Your task to perform on an android device: Search for a 100 ft extension cord Image 0: 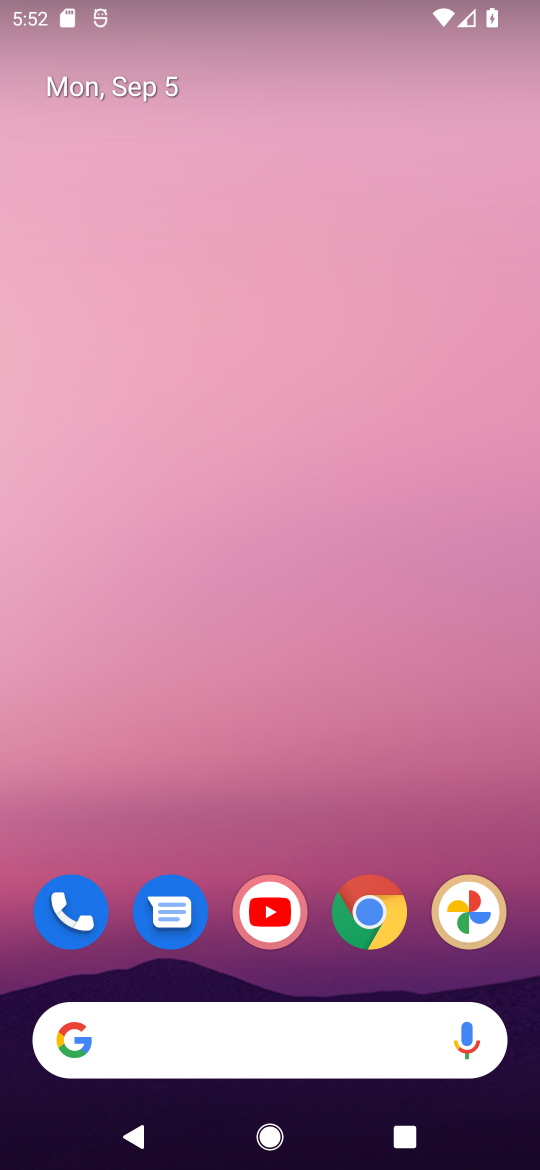
Step 0: click (365, 911)
Your task to perform on an android device: Search for a 100 ft extension cord Image 1: 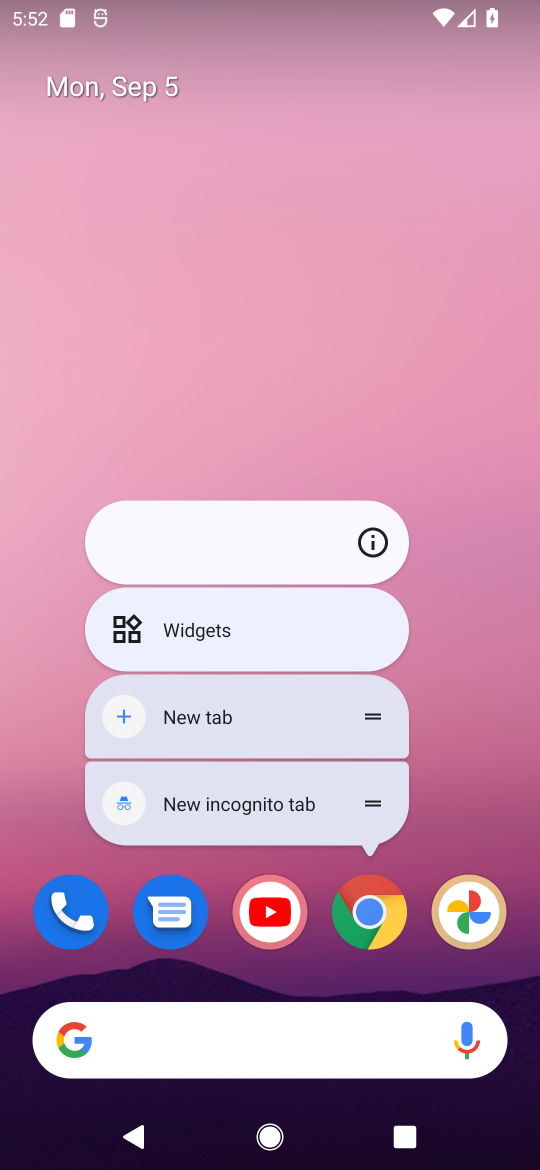
Step 1: click (365, 911)
Your task to perform on an android device: Search for a 100 ft extension cord Image 2: 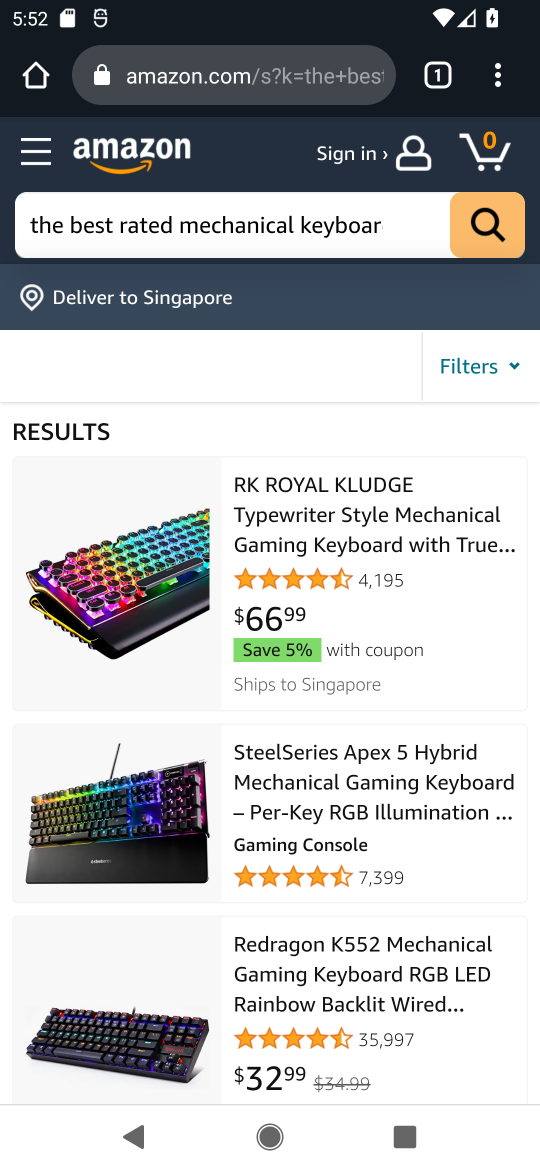
Step 2: click (209, 76)
Your task to perform on an android device: Search for a 100 ft extension cord Image 3: 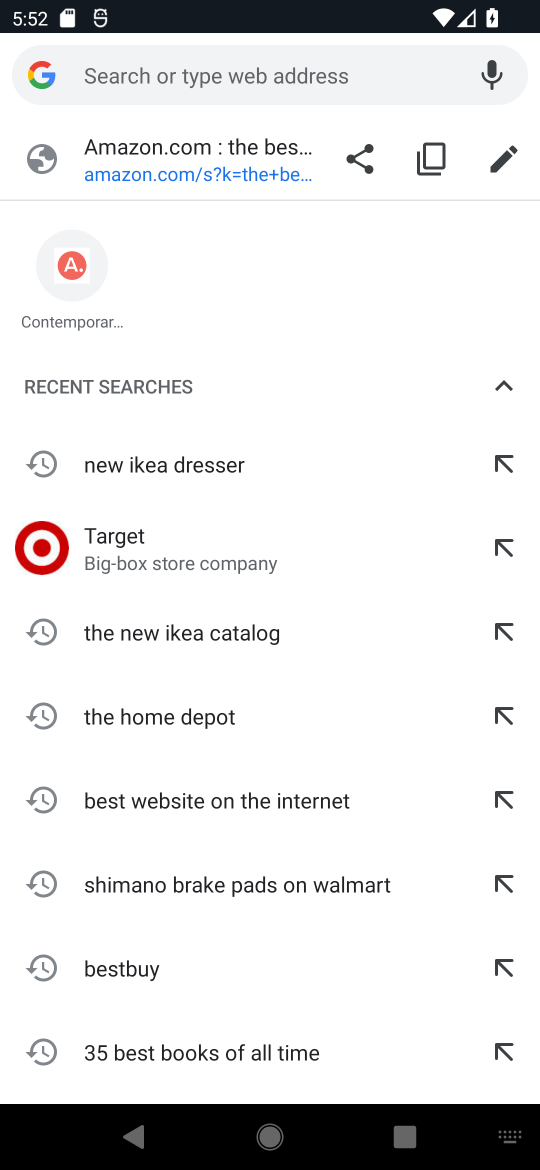
Step 3: type " a 100 ft extension cord"
Your task to perform on an android device: Search for a 100 ft extension cord Image 4: 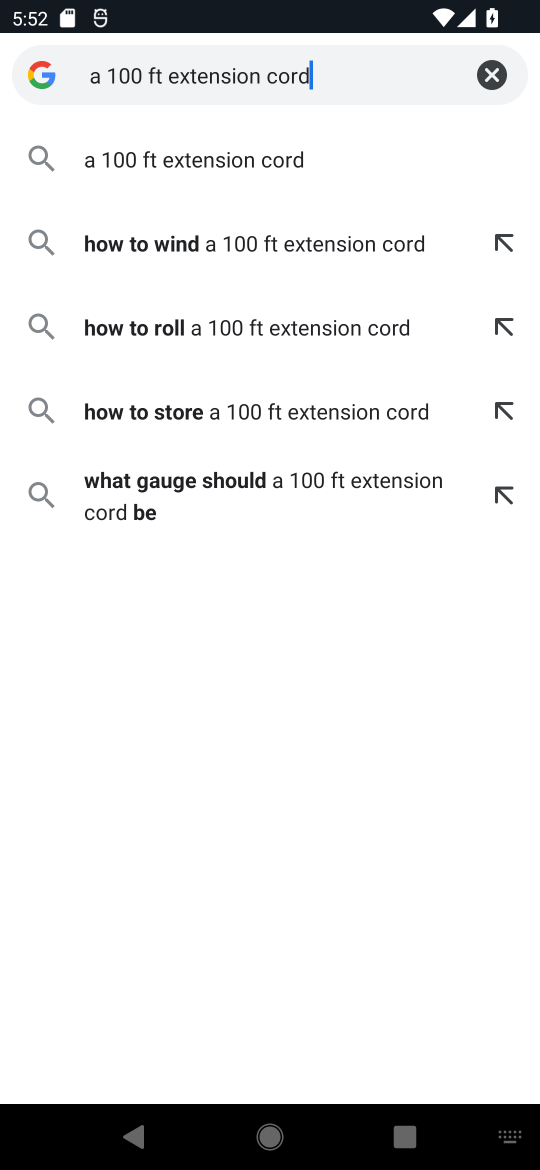
Step 4: click (202, 174)
Your task to perform on an android device: Search for a 100 ft extension cord Image 5: 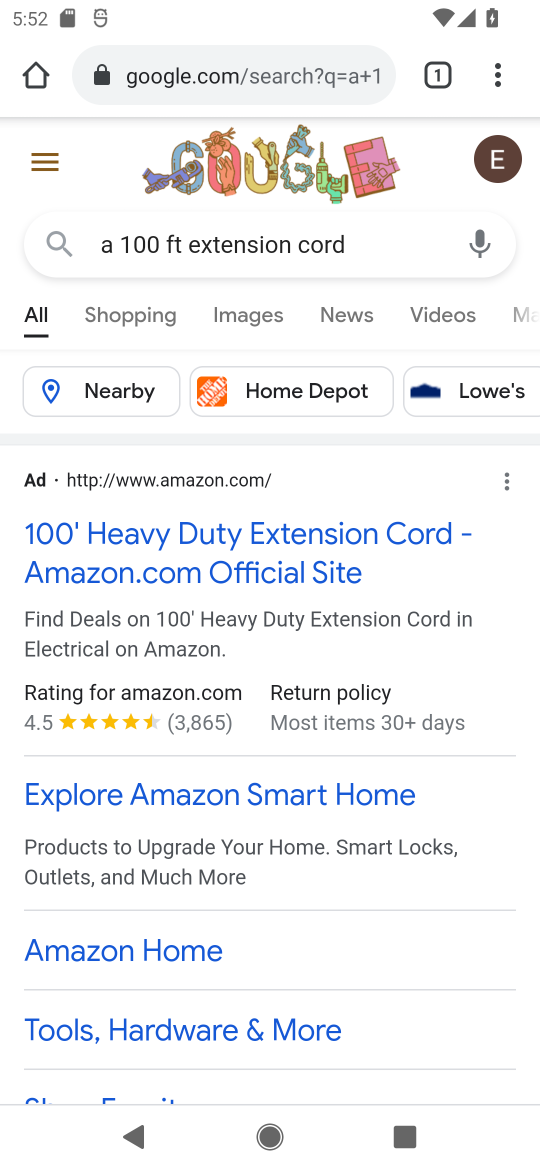
Step 5: task complete